Your task to perform on an android device: Add dell xps to the cart on walmart, then select checkout. Image 0: 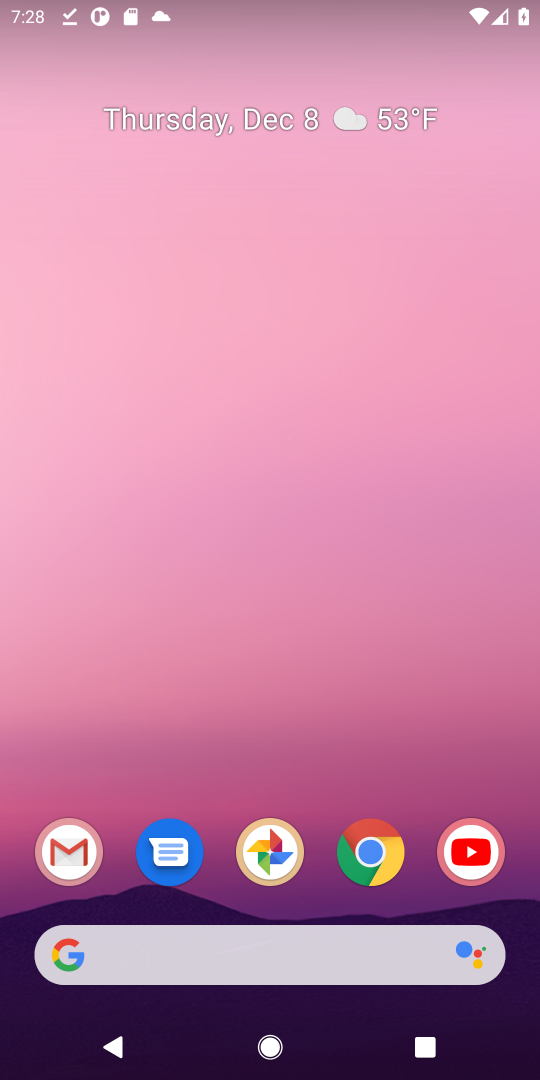
Step 0: click (330, 971)
Your task to perform on an android device: Add dell xps to the cart on walmart, then select checkout. Image 1: 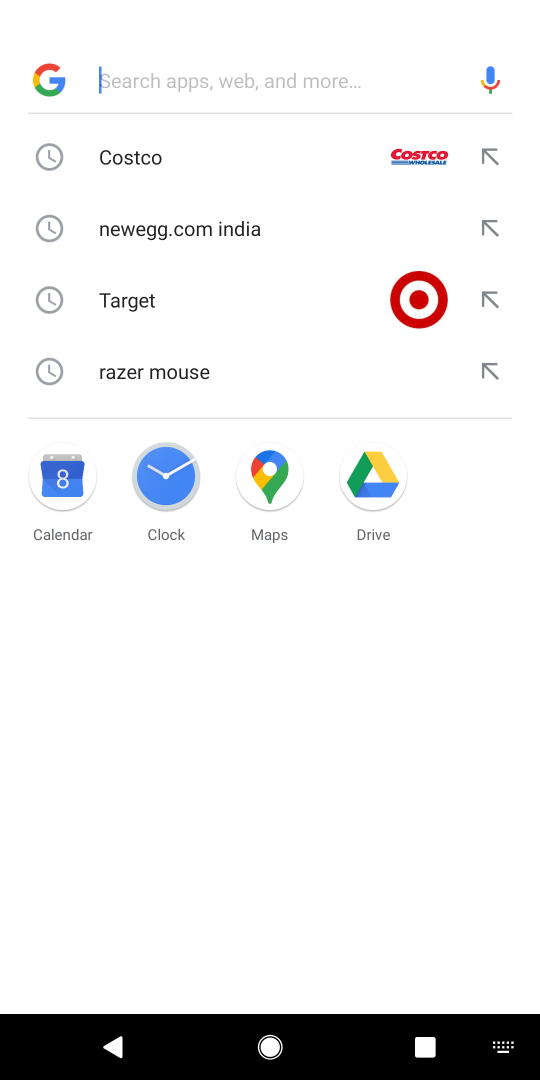
Step 1: type "walmart"
Your task to perform on an android device: Add dell xps to the cart on walmart, then select checkout. Image 2: 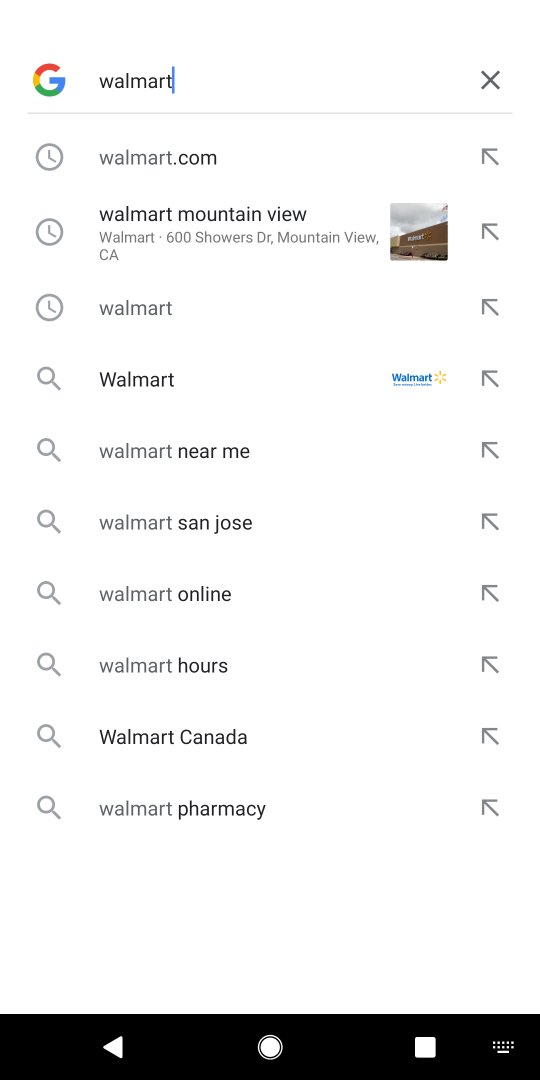
Step 2: click (149, 171)
Your task to perform on an android device: Add dell xps to the cart on walmart, then select checkout. Image 3: 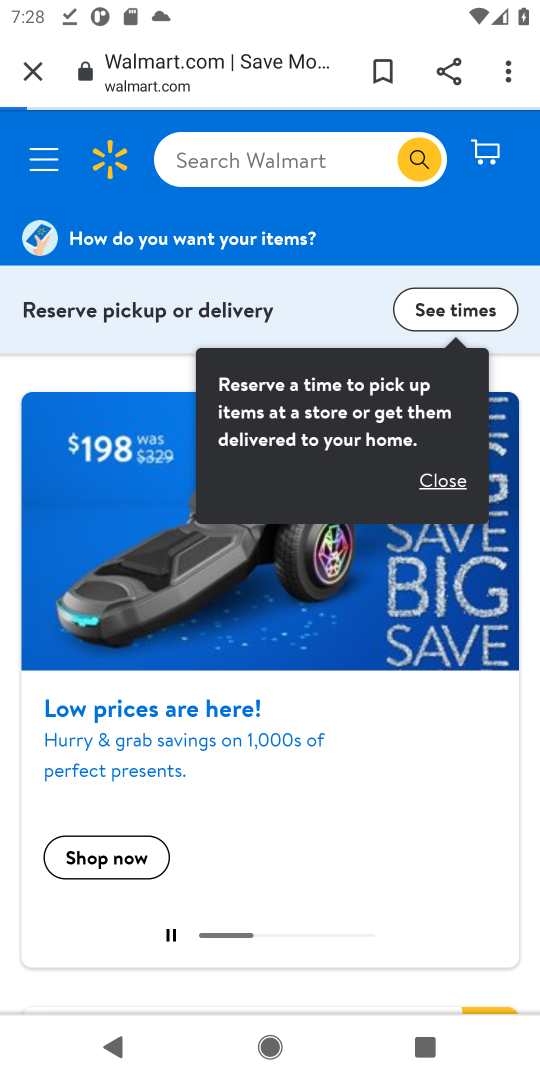
Step 3: click (215, 178)
Your task to perform on an android device: Add dell xps to the cart on walmart, then select checkout. Image 4: 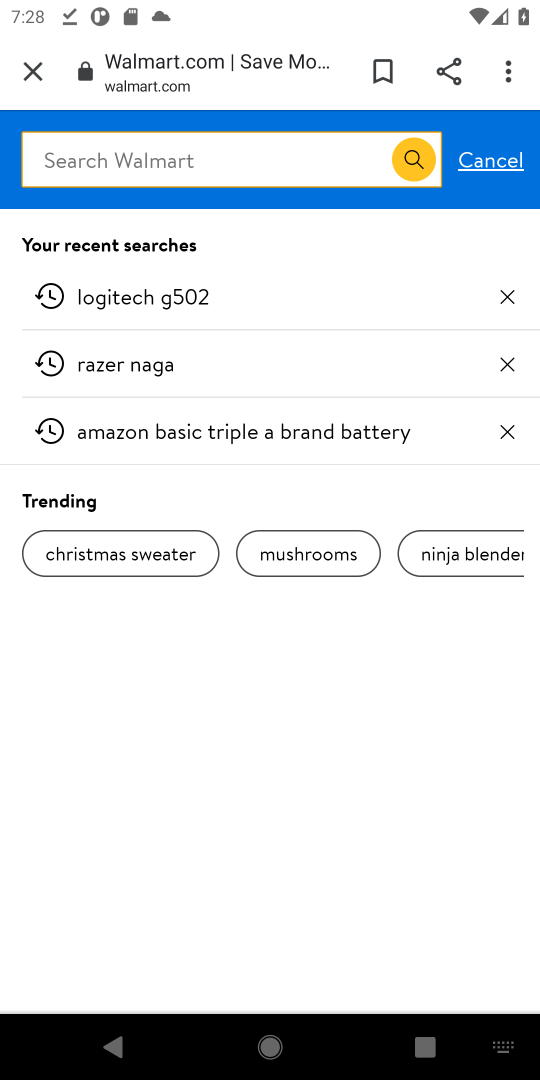
Step 4: type "dell xps"
Your task to perform on an android device: Add dell xps to the cart on walmart, then select checkout. Image 5: 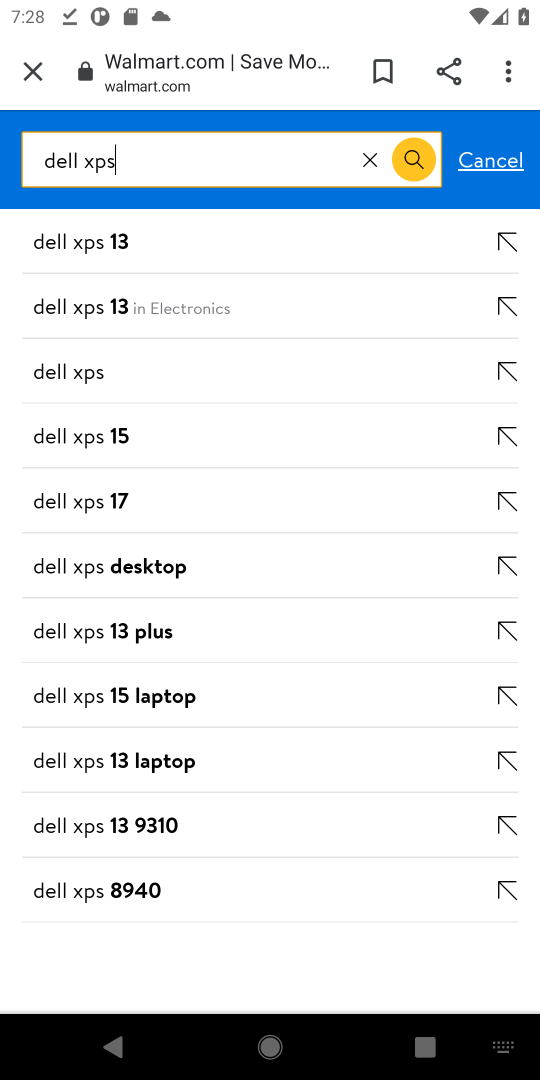
Step 5: click (407, 167)
Your task to perform on an android device: Add dell xps to the cart on walmart, then select checkout. Image 6: 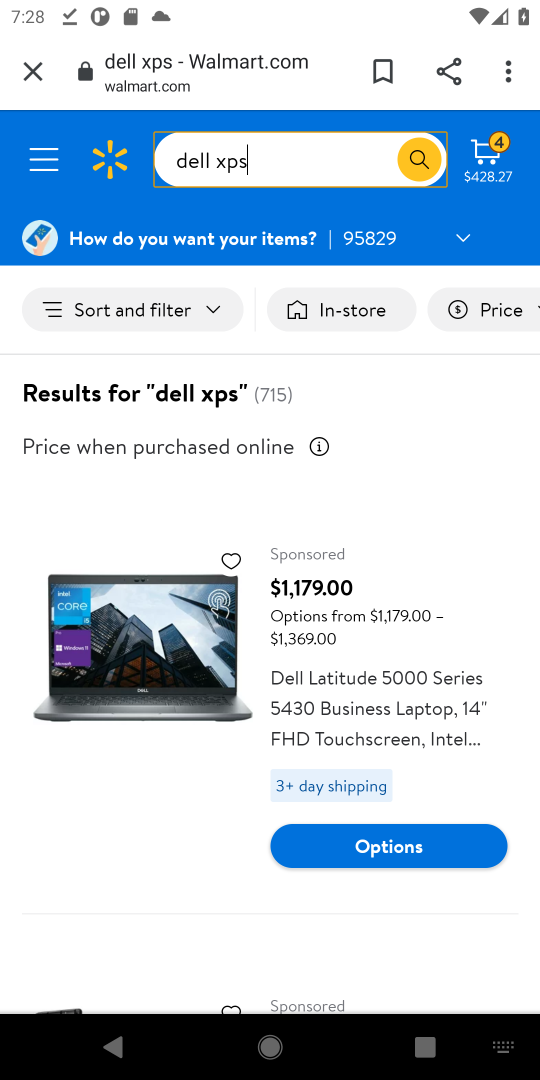
Step 6: click (364, 862)
Your task to perform on an android device: Add dell xps to the cart on walmart, then select checkout. Image 7: 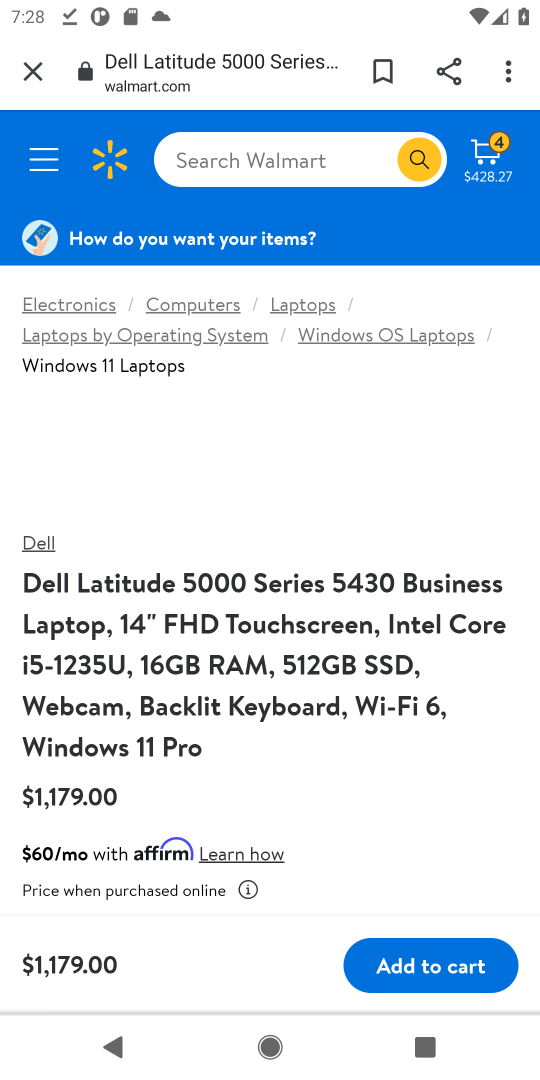
Step 7: click (409, 956)
Your task to perform on an android device: Add dell xps to the cart on walmart, then select checkout. Image 8: 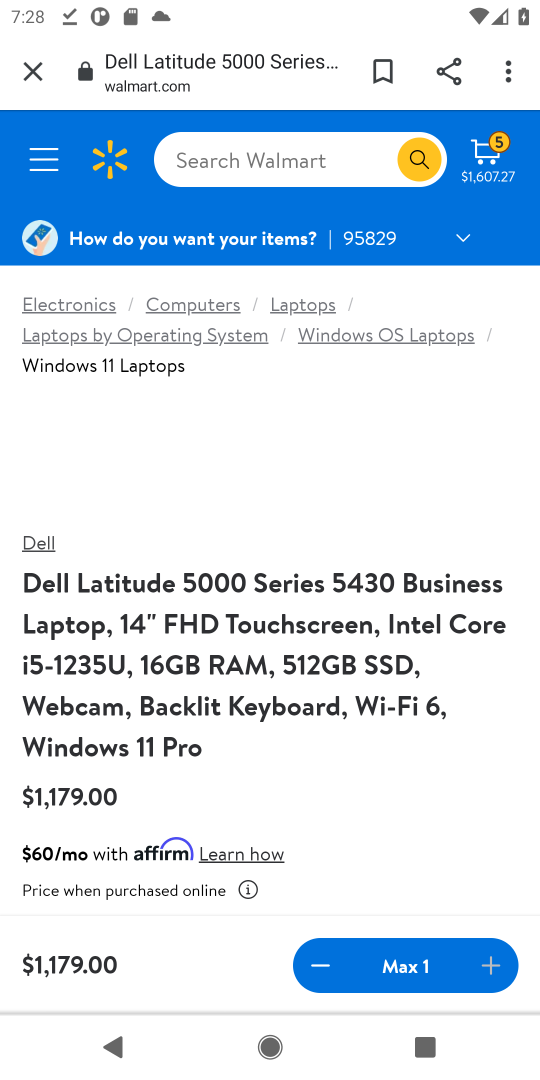
Step 8: task complete